Your task to perform on an android device: toggle notifications settings in the gmail app Image 0: 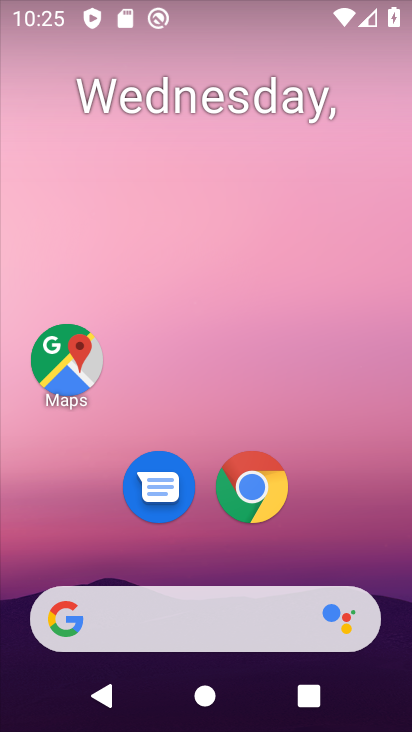
Step 0: drag from (298, 636) to (350, 61)
Your task to perform on an android device: toggle notifications settings in the gmail app Image 1: 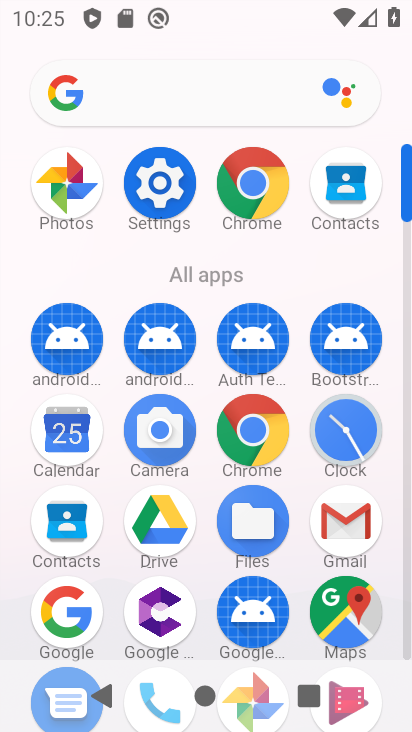
Step 1: click (321, 504)
Your task to perform on an android device: toggle notifications settings in the gmail app Image 2: 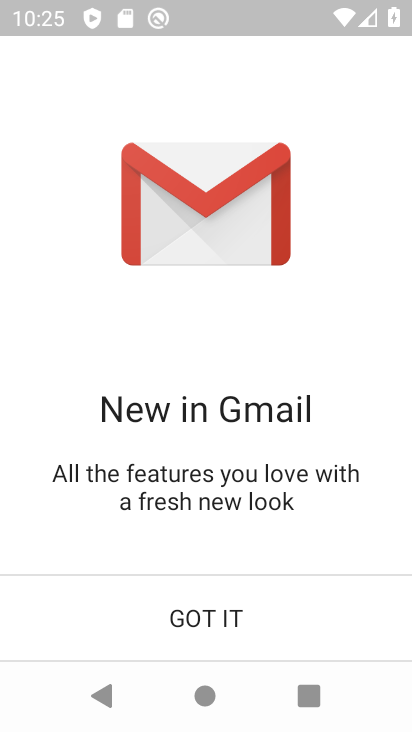
Step 2: click (230, 622)
Your task to perform on an android device: toggle notifications settings in the gmail app Image 3: 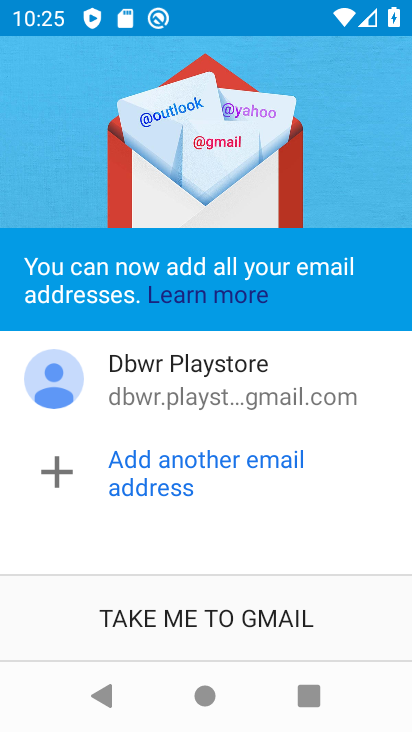
Step 3: click (230, 622)
Your task to perform on an android device: toggle notifications settings in the gmail app Image 4: 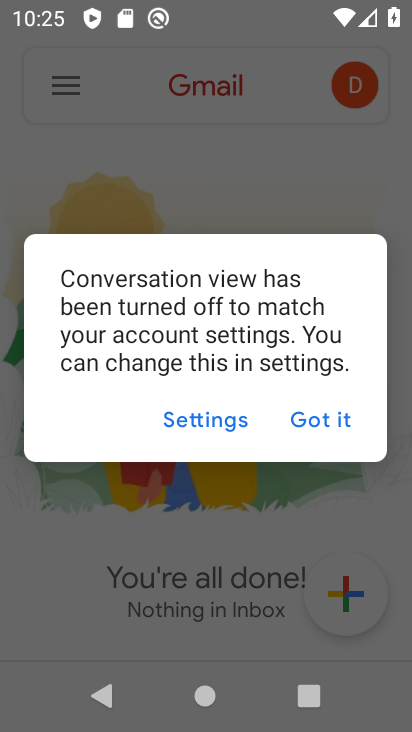
Step 4: click (296, 421)
Your task to perform on an android device: toggle notifications settings in the gmail app Image 5: 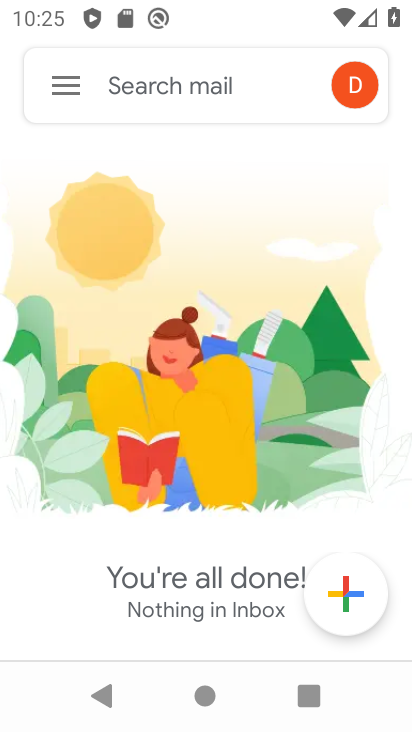
Step 5: click (78, 82)
Your task to perform on an android device: toggle notifications settings in the gmail app Image 6: 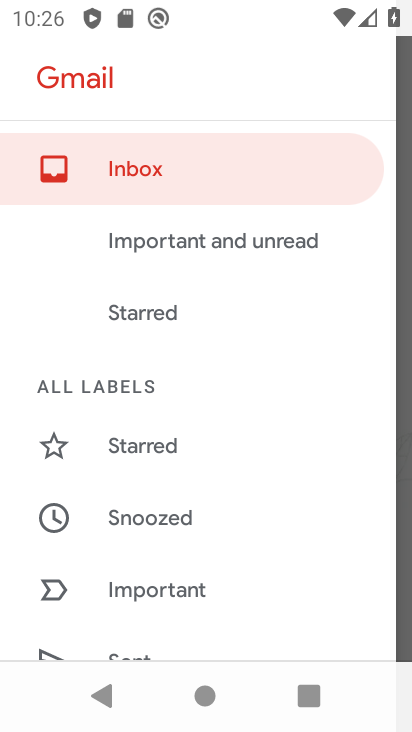
Step 6: drag from (252, 578) to (288, 82)
Your task to perform on an android device: toggle notifications settings in the gmail app Image 7: 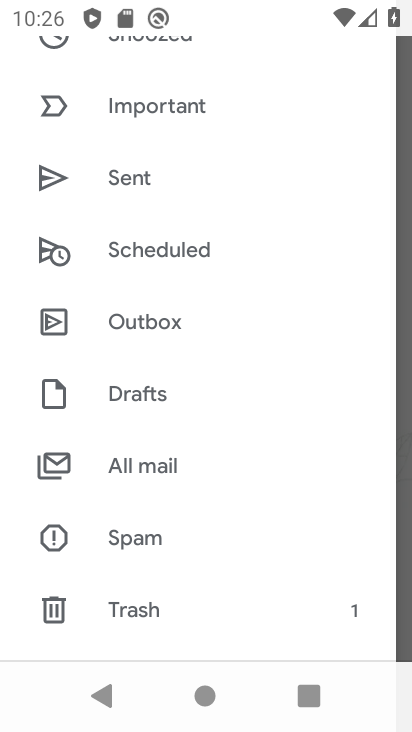
Step 7: drag from (174, 286) to (195, 7)
Your task to perform on an android device: toggle notifications settings in the gmail app Image 8: 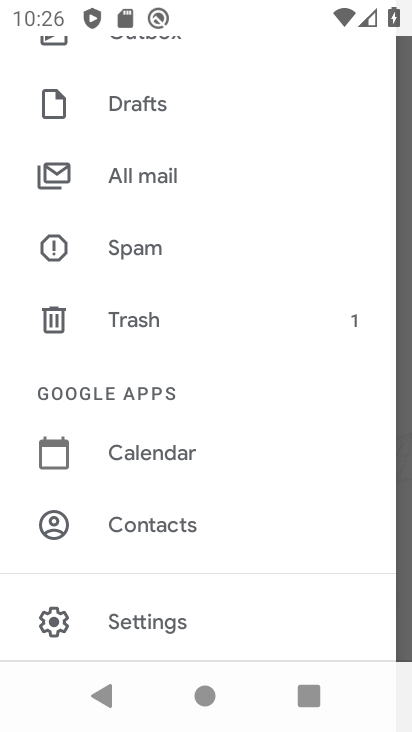
Step 8: click (142, 635)
Your task to perform on an android device: toggle notifications settings in the gmail app Image 9: 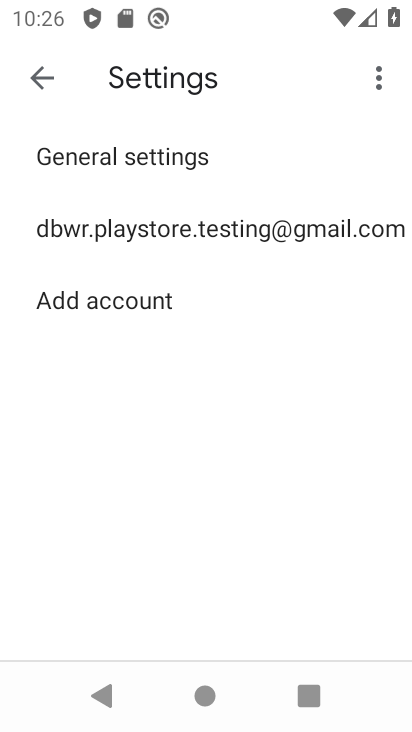
Step 9: click (173, 187)
Your task to perform on an android device: toggle notifications settings in the gmail app Image 10: 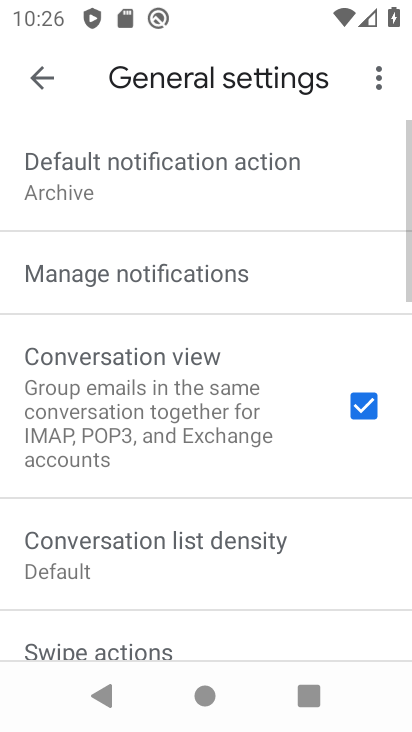
Step 10: drag from (191, 618) to (134, 634)
Your task to perform on an android device: toggle notifications settings in the gmail app Image 11: 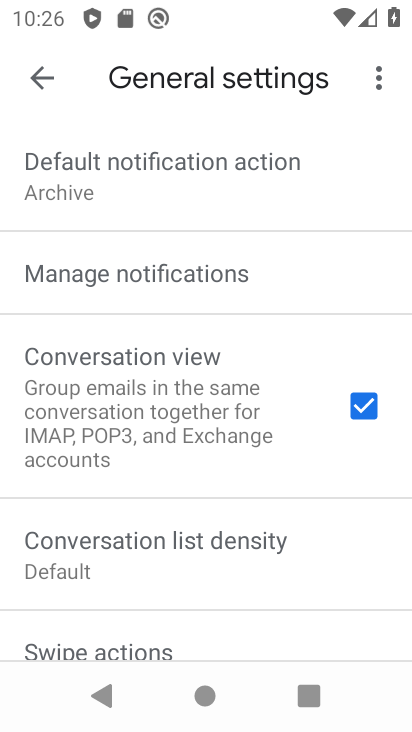
Step 11: click (159, 275)
Your task to perform on an android device: toggle notifications settings in the gmail app Image 12: 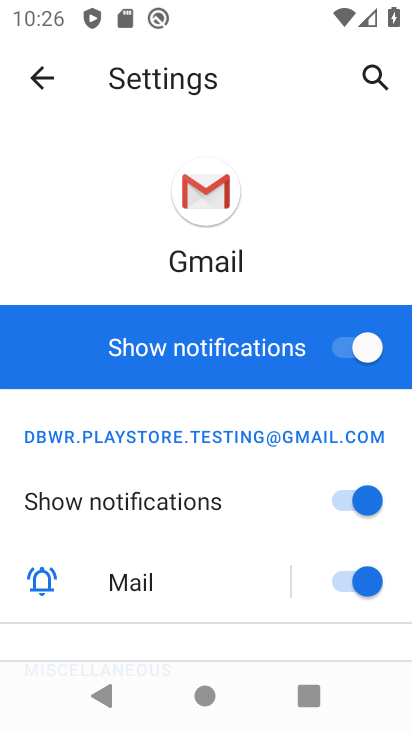
Step 12: click (329, 345)
Your task to perform on an android device: toggle notifications settings in the gmail app Image 13: 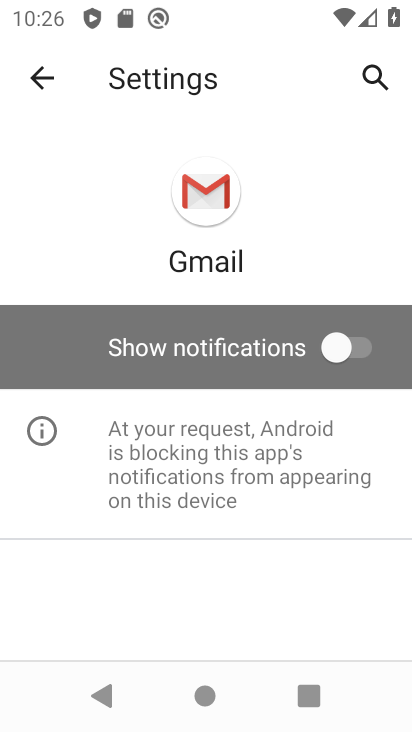
Step 13: task complete